Your task to perform on an android device: turn notification dots on Image 0: 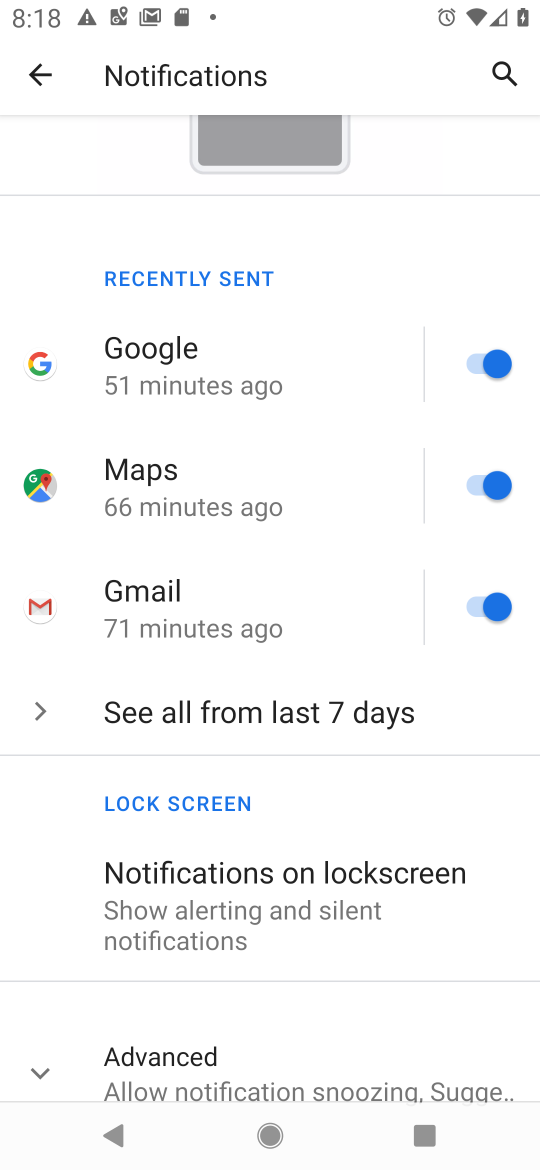
Step 0: press home button
Your task to perform on an android device: turn notification dots on Image 1: 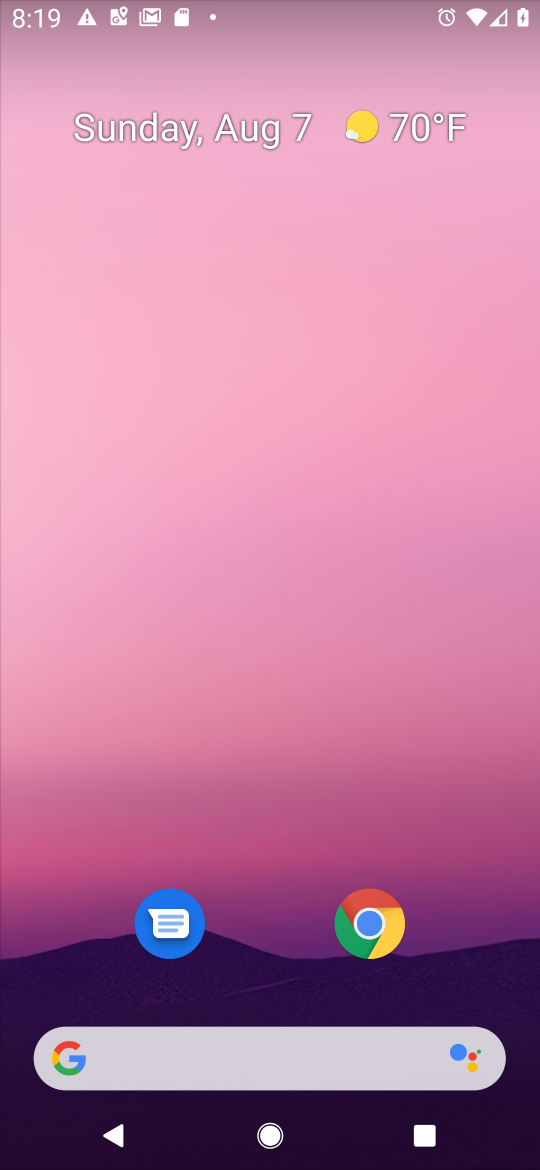
Step 1: drag from (447, 941) to (320, 76)
Your task to perform on an android device: turn notification dots on Image 2: 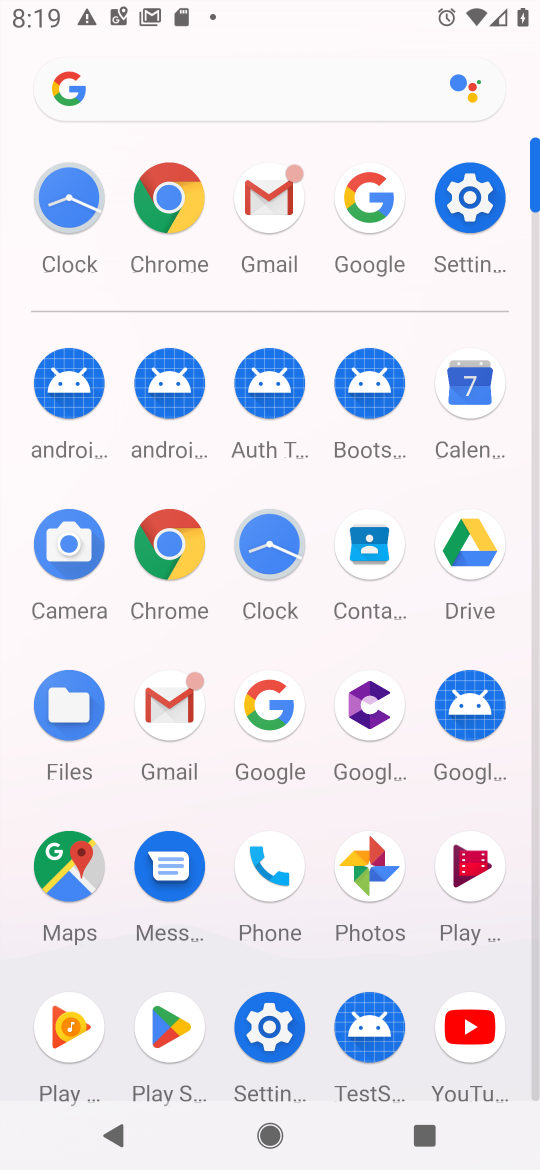
Step 2: click (484, 219)
Your task to perform on an android device: turn notification dots on Image 3: 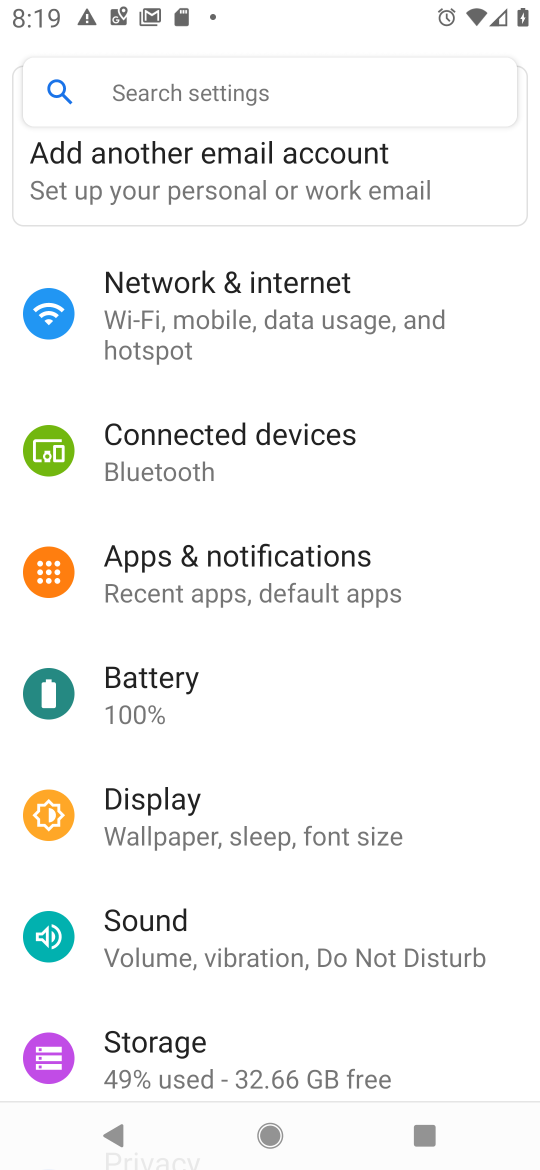
Step 3: click (280, 579)
Your task to perform on an android device: turn notification dots on Image 4: 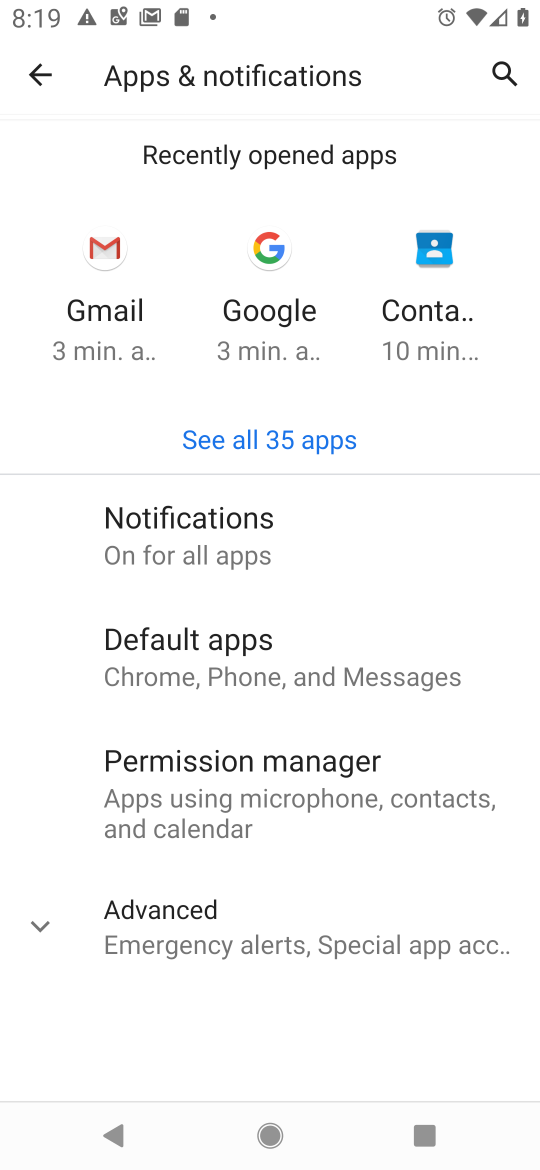
Step 4: click (233, 513)
Your task to perform on an android device: turn notification dots on Image 5: 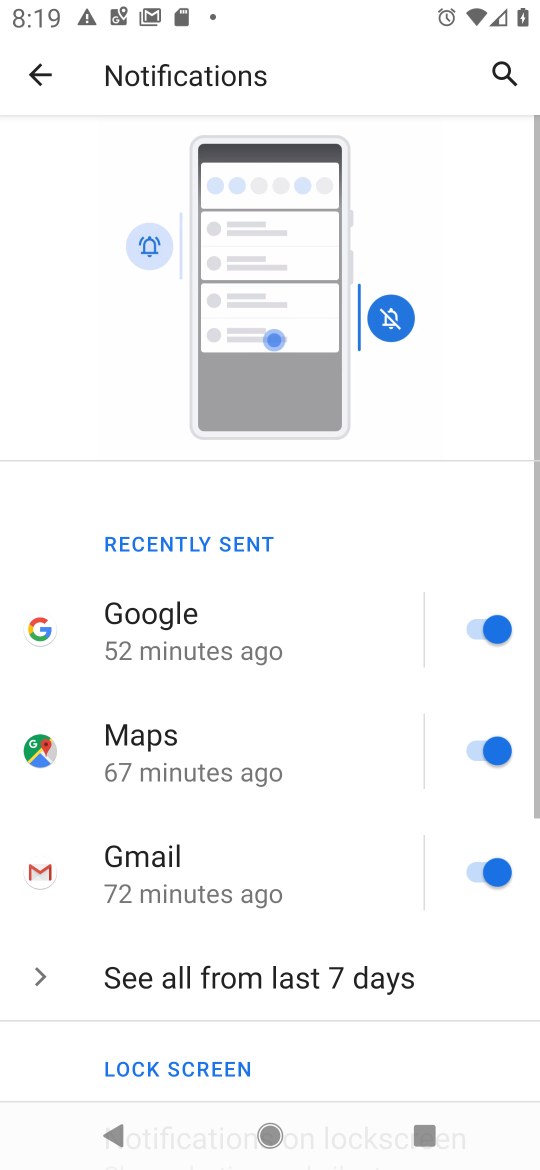
Step 5: drag from (262, 1029) to (274, 14)
Your task to perform on an android device: turn notification dots on Image 6: 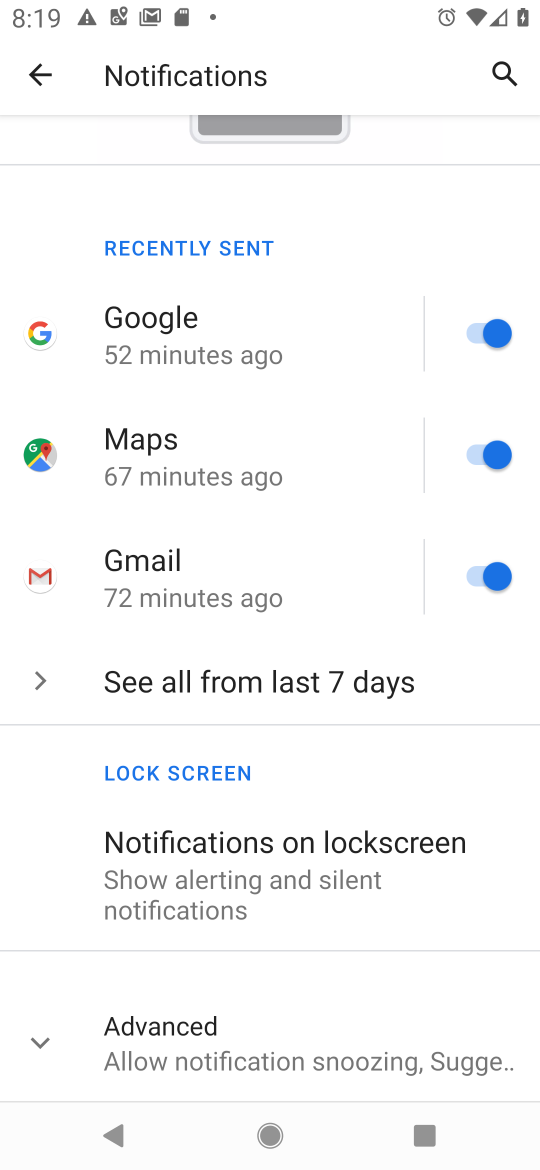
Step 6: click (215, 1039)
Your task to perform on an android device: turn notification dots on Image 7: 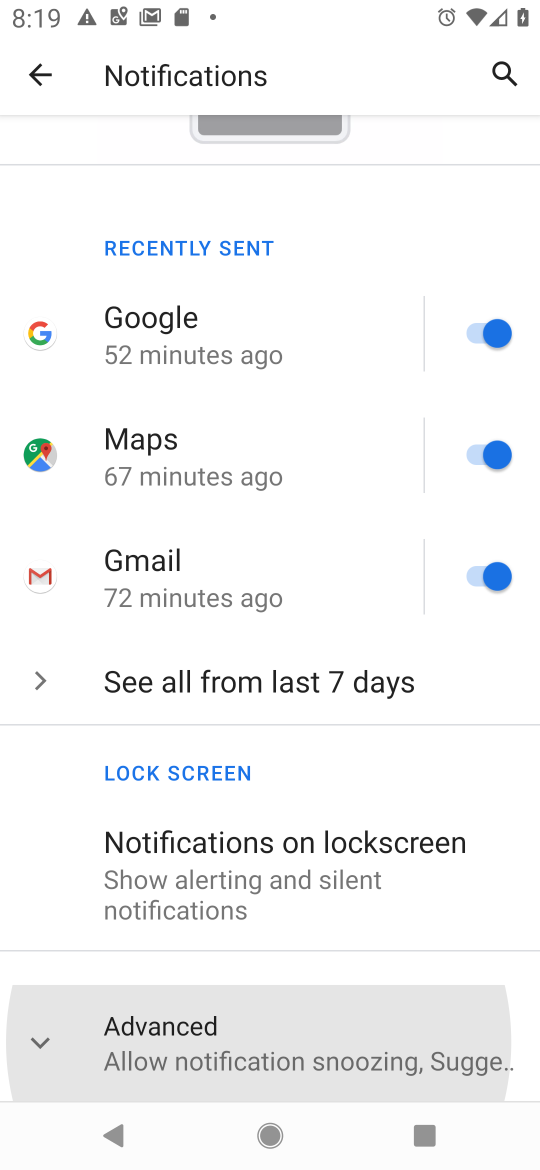
Step 7: task complete